Your task to perform on an android device: open a bookmark in the chrome app Image 0: 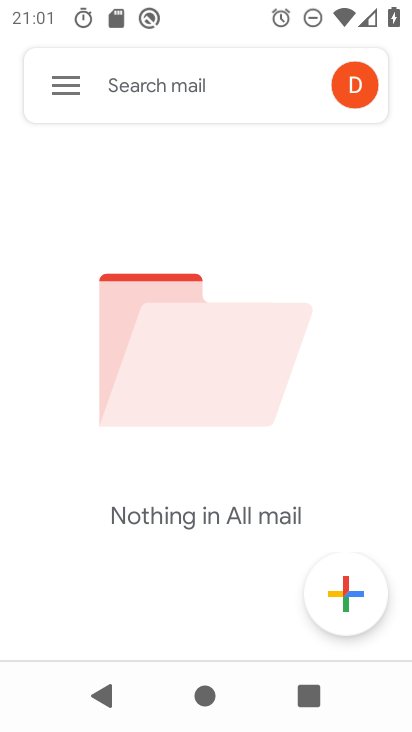
Step 0: press home button
Your task to perform on an android device: open a bookmark in the chrome app Image 1: 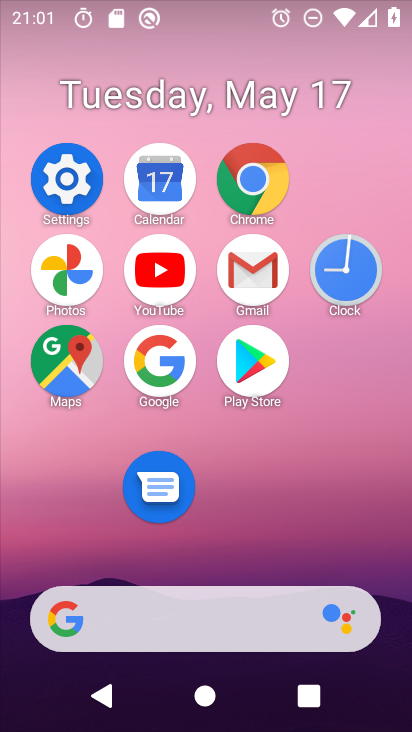
Step 1: click (258, 193)
Your task to perform on an android device: open a bookmark in the chrome app Image 2: 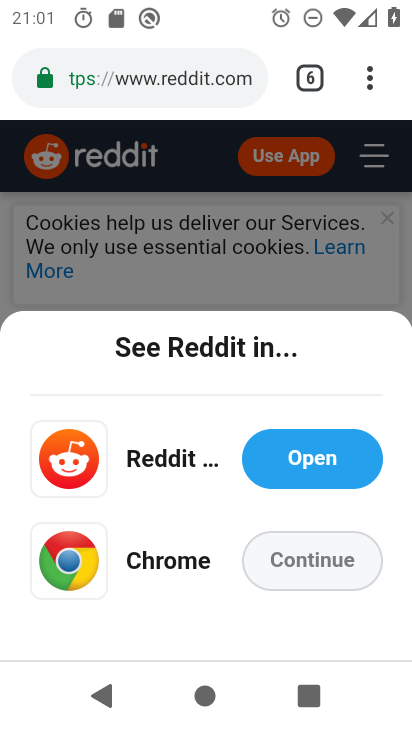
Step 2: click (373, 70)
Your task to perform on an android device: open a bookmark in the chrome app Image 3: 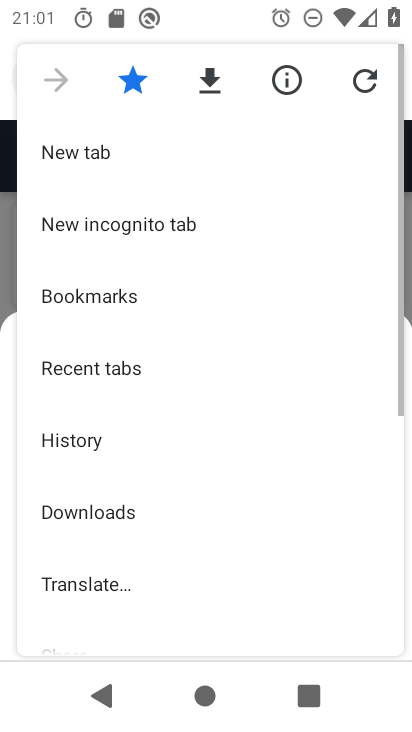
Step 3: click (244, 297)
Your task to perform on an android device: open a bookmark in the chrome app Image 4: 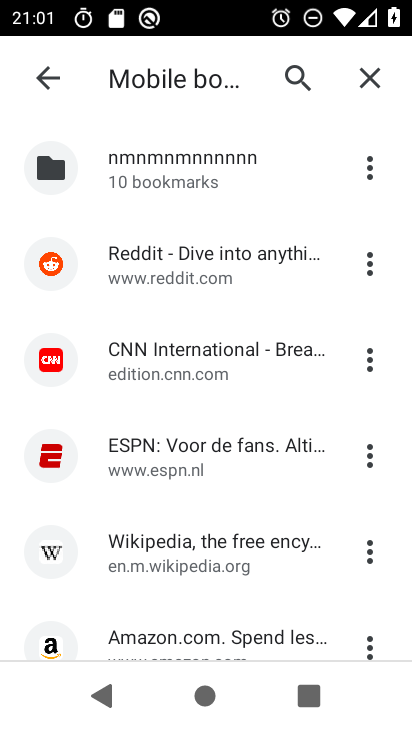
Step 4: task complete